Your task to perform on an android device: Open the calendar app, open the side menu, and click the "Day" option Image 0: 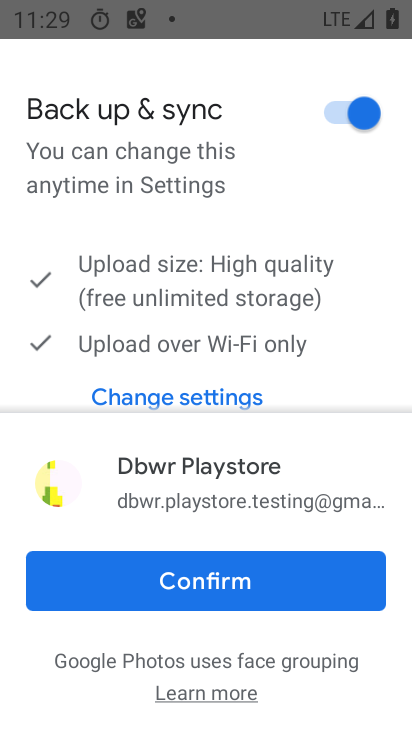
Step 0: press home button
Your task to perform on an android device: Open the calendar app, open the side menu, and click the "Day" option Image 1: 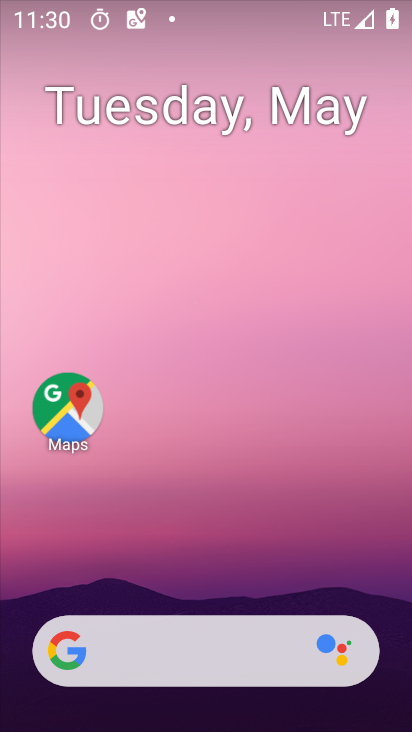
Step 1: drag from (168, 641) to (150, 180)
Your task to perform on an android device: Open the calendar app, open the side menu, and click the "Day" option Image 2: 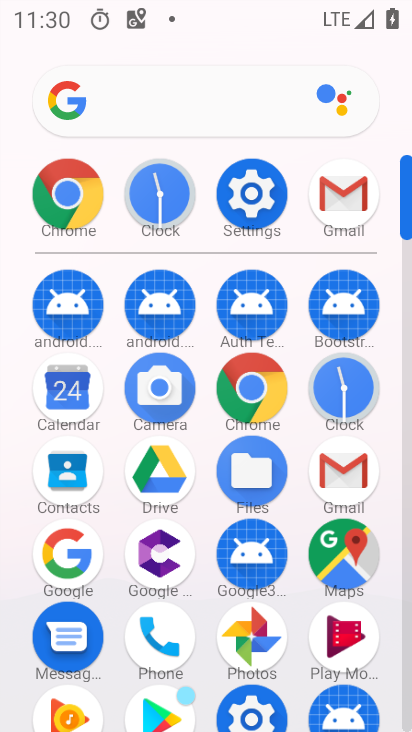
Step 2: click (74, 392)
Your task to perform on an android device: Open the calendar app, open the side menu, and click the "Day" option Image 3: 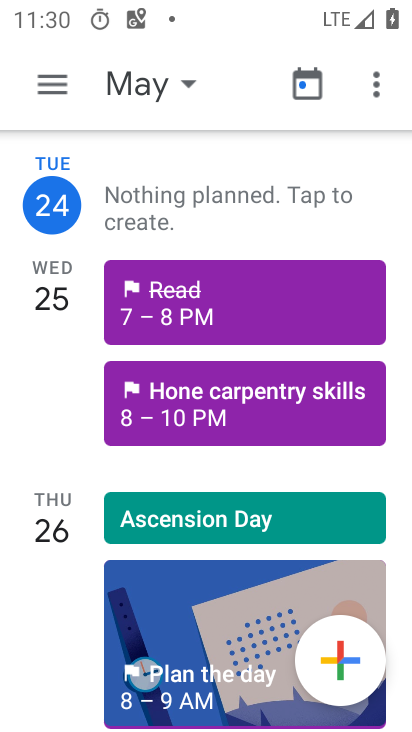
Step 3: click (42, 105)
Your task to perform on an android device: Open the calendar app, open the side menu, and click the "Day" option Image 4: 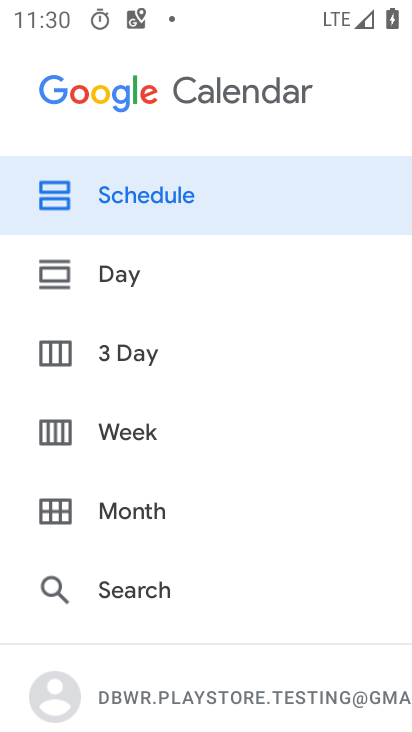
Step 4: click (133, 290)
Your task to perform on an android device: Open the calendar app, open the side menu, and click the "Day" option Image 5: 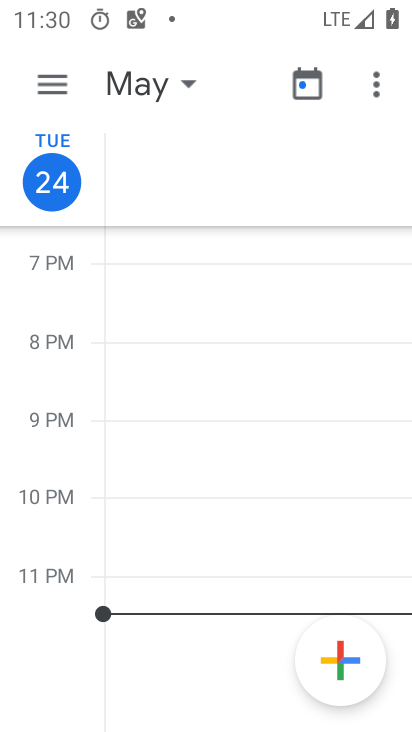
Step 5: task complete